Your task to perform on an android device: manage bookmarks in the chrome app Image 0: 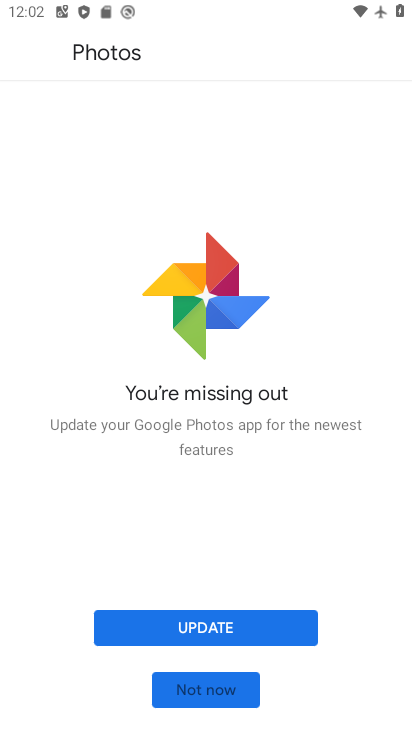
Step 0: press back button
Your task to perform on an android device: manage bookmarks in the chrome app Image 1: 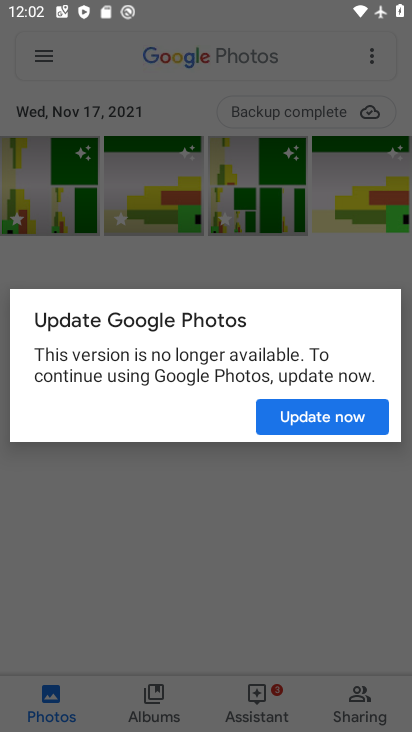
Step 1: press back button
Your task to perform on an android device: manage bookmarks in the chrome app Image 2: 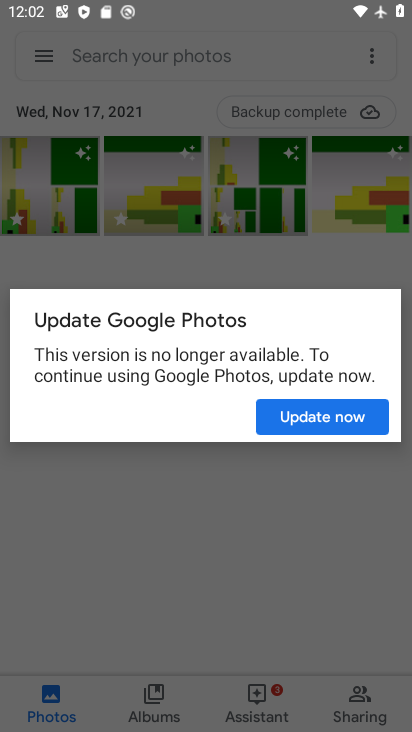
Step 2: press back button
Your task to perform on an android device: manage bookmarks in the chrome app Image 3: 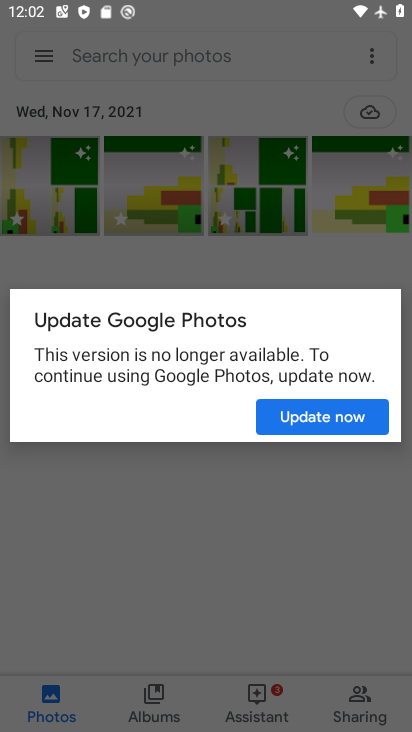
Step 3: press back button
Your task to perform on an android device: manage bookmarks in the chrome app Image 4: 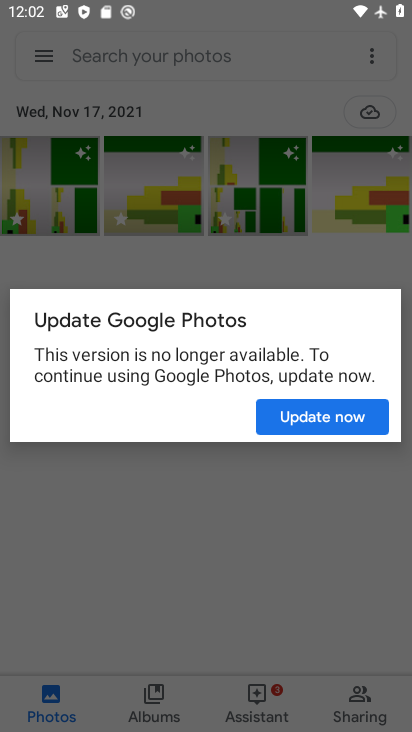
Step 4: press back button
Your task to perform on an android device: manage bookmarks in the chrome app Image 5: 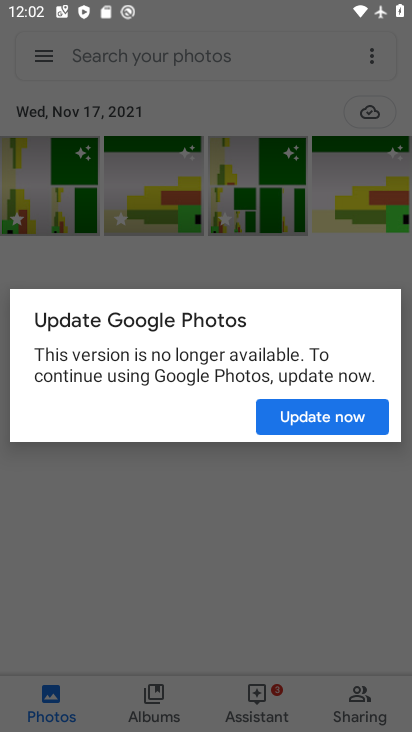
Step 5: press back button
Your task to perform on an android device: manage bookmarks in the chrome app Image 6: 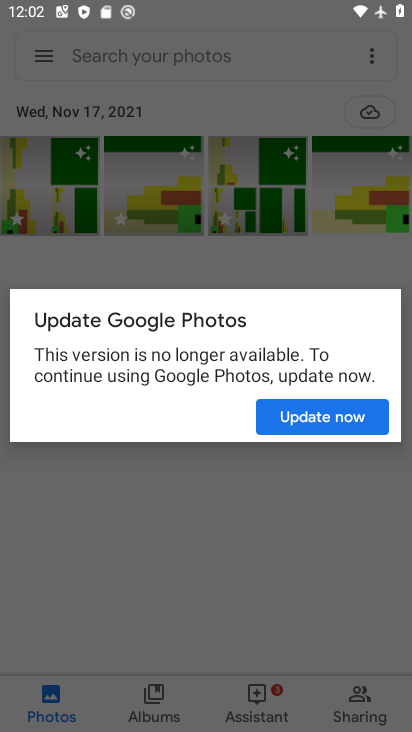
Step 6: press home button
Your task to perform on an android device: manage bookmarks in the chrome app Image 7: 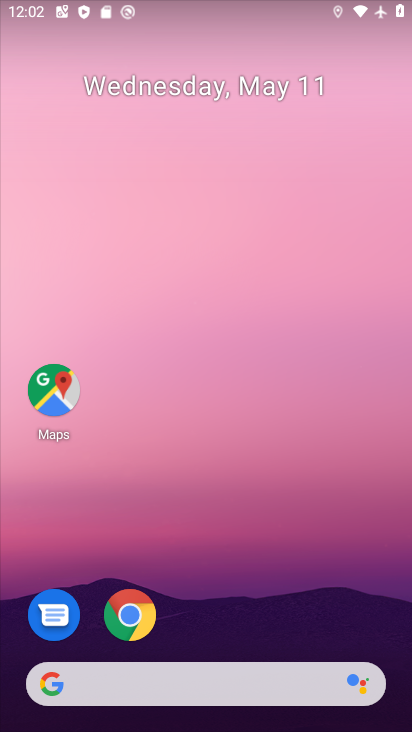
Step 7: drag from (262, 526) to (259, 3)
Your task to perform on an android device: manage bookmarks in the chrome app Image 8: 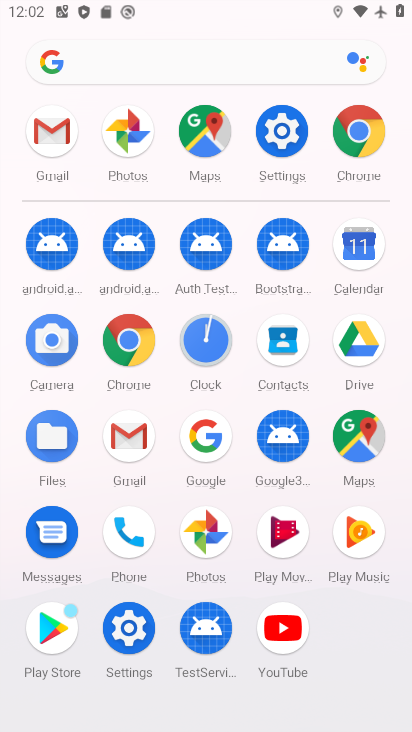
Step 8: click (122, 339)
Your task to perform on an android device: manage bookmarks in the chrome app Image 9: 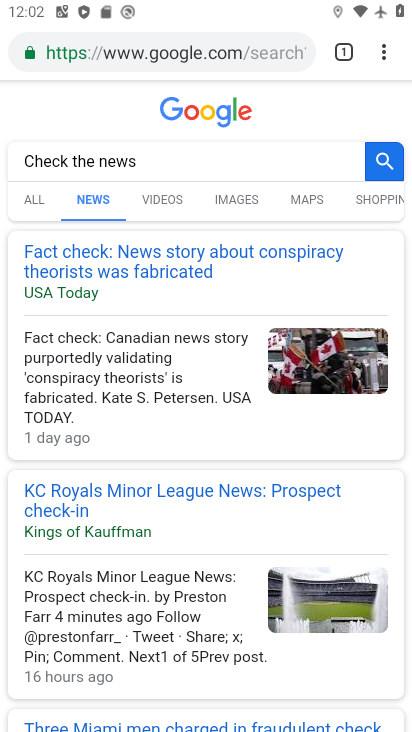
Step 9: task complete